Your task to perform on an android device: What's on my calendar today? Image 0: 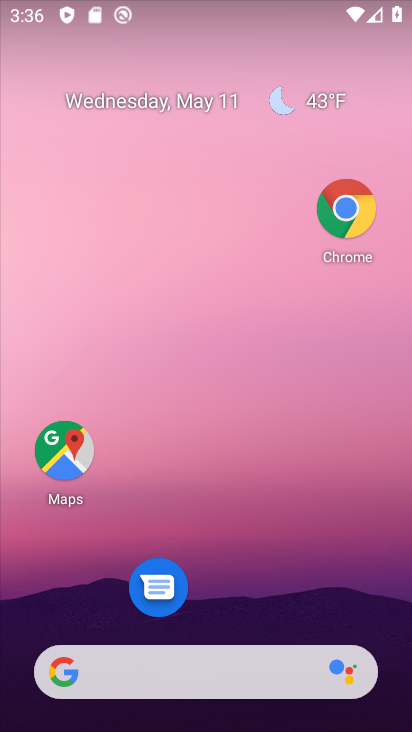
Step 0: click (208, 91)
Your task to perform on an android device: What's on my calendar today? Image 1: 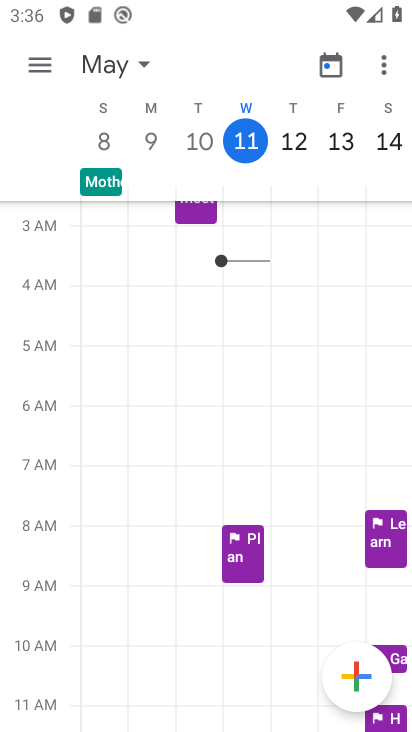
Step 1: drag from (191, 421) to (225, 72)
Your task to perform on an android device: What's on my calendar today? Image 2: 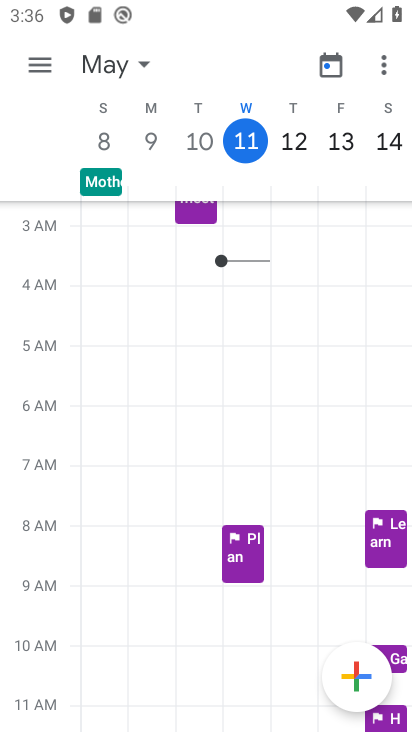
Step 2: drag from (109, 578) to (177, 99)
Your task to perform on an android device: What's on my calendar today? Image 3: 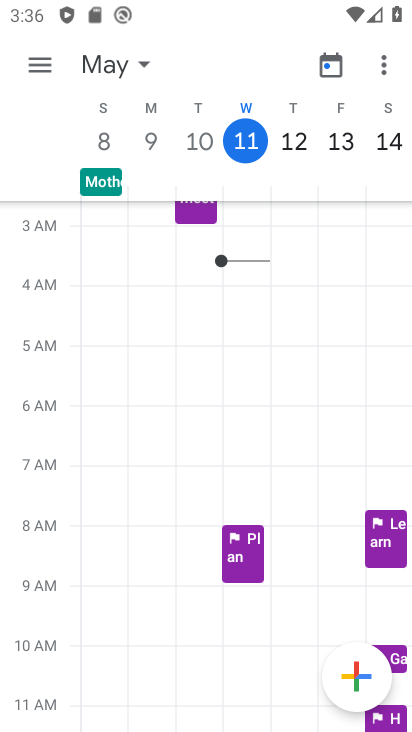
Step 3: drag from (151, 458) to (128, 406)
Your task to perform on an android device: What's on my calendar today? Image 4: 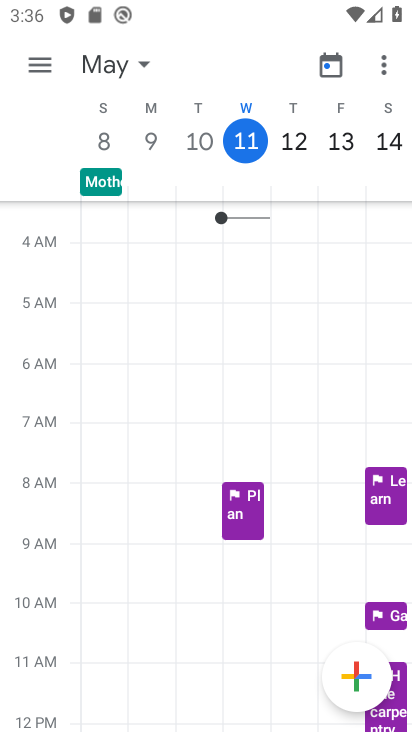
Step 4: drag from (123, 403) to (404, 351)
Your task to perform on an android device: What's on my calendar today? Image 5: 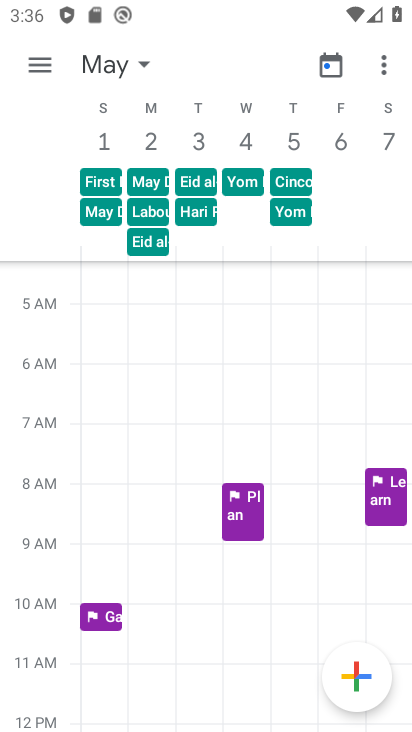
Step 5: click (47, 63)
Your task to perform on an android device: What's on my calendar today? Image 6: 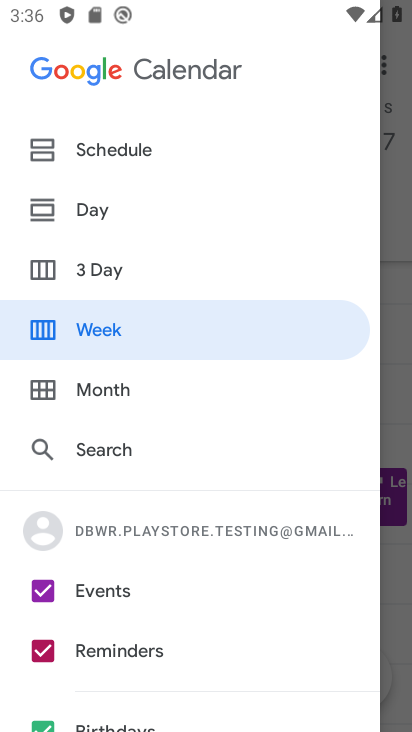
Step 6: click (102, 207)
Your task to perform on an android device: What's on my calendar today? Image 7: 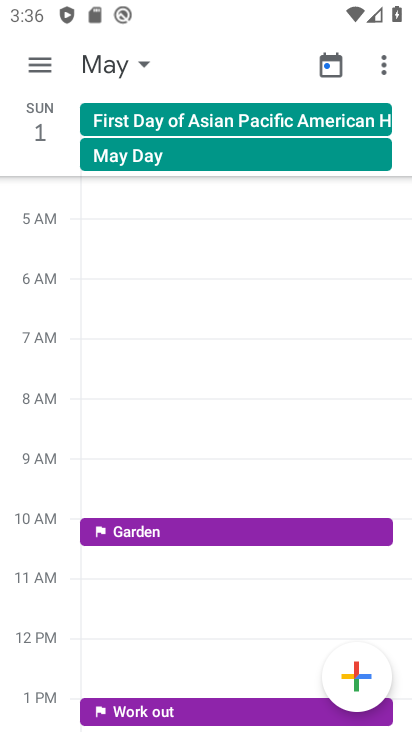
Step 7: click (71, 122)
Your task to perform on an android device: What's on my calendar today? Image 8: 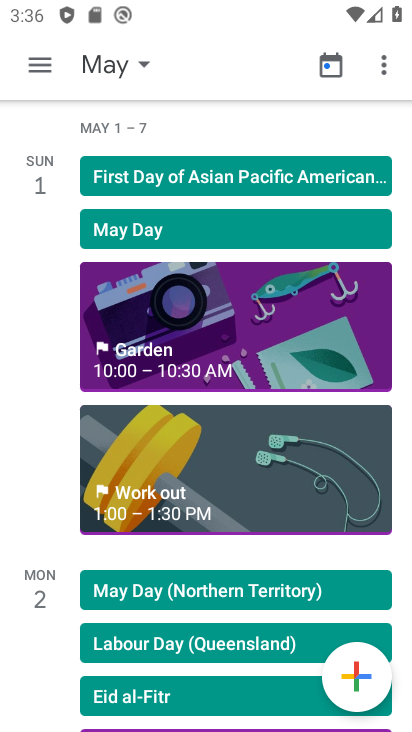
Step 8: click (44, 187)
Your task to perform on an android device: What's on my calendar today? Image 9: 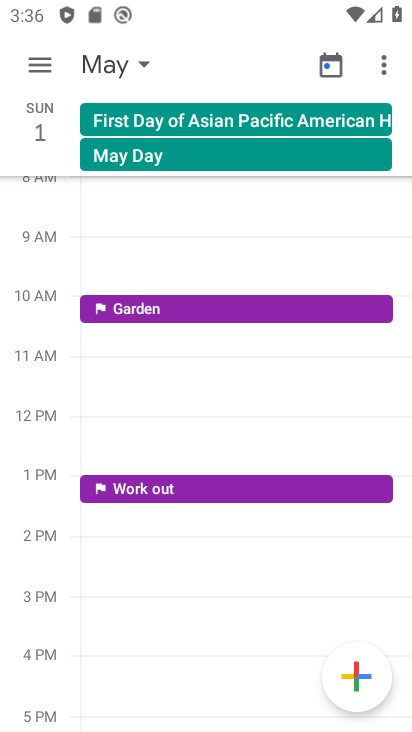
Step 9: click (43, 65)
Your task to perform on an android device: What's on my calendar today? Image 10: 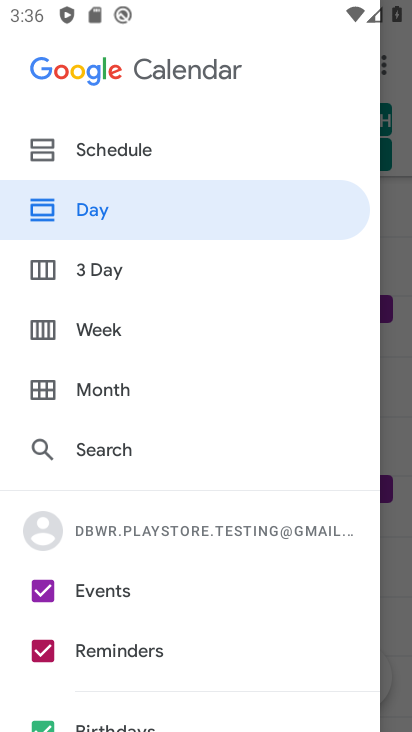
Step 10: click (81, 393)
Your task to perform on an android device: What's on my calendar today? Image 11: 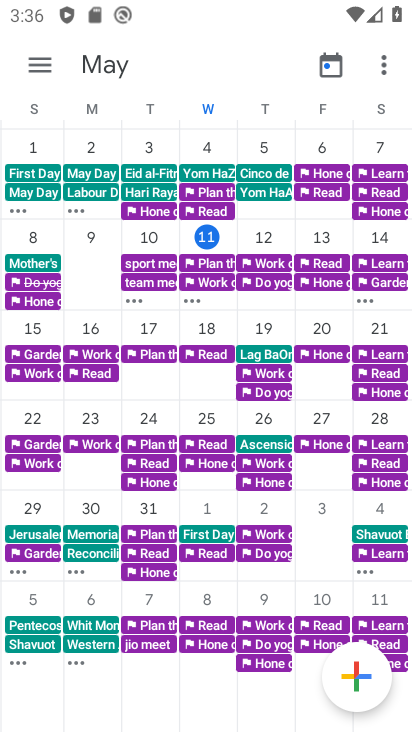
Step 11: drag from (146, 481) to (194, 201)
Your task to perform on an android device: What's on my calendar today? Image 12: 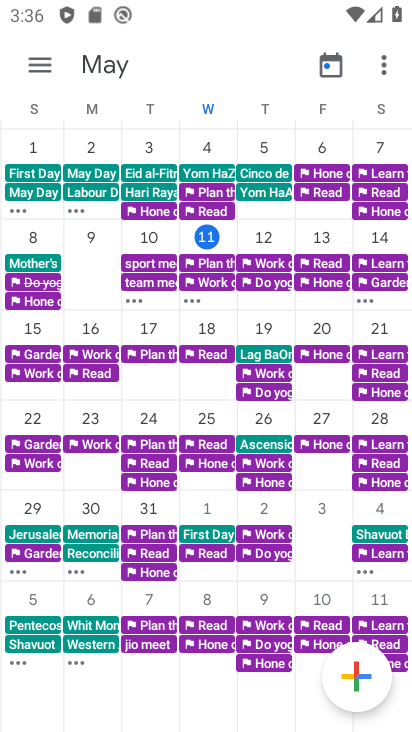
Step 12: click (207, 226)
Your task to perform on an android device: What's on my calendar today? Image 13: 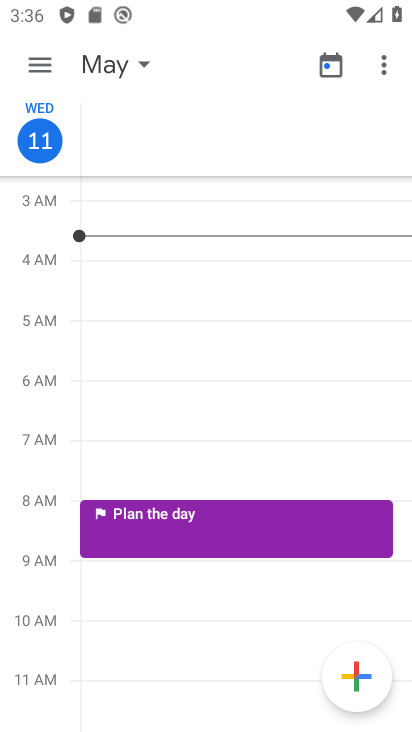
Step 13: click (209, 421)
Your task to perform on an android device: What's on my calendar today? Image 14: 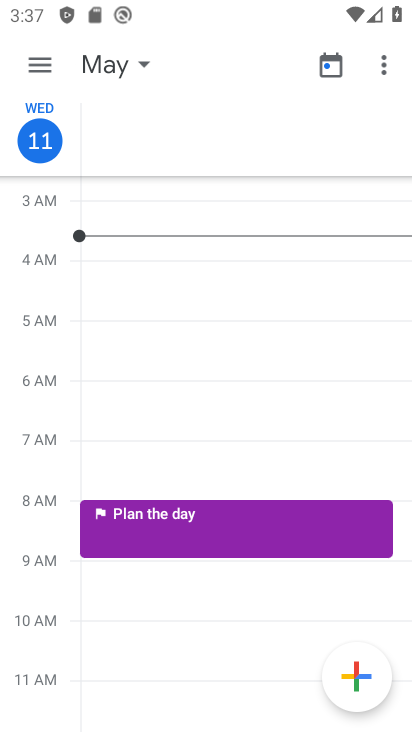
Step 14: task complete